Your task to perform on an android device: check storage Image 0: 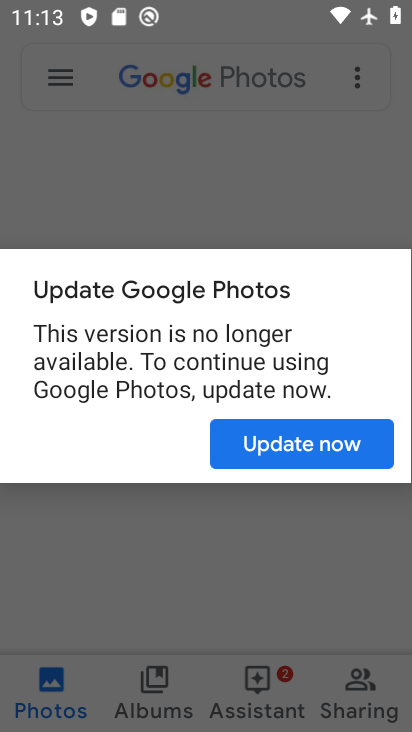
Step 0: press home button
Your task to perform on an android device: check storage Image 1: 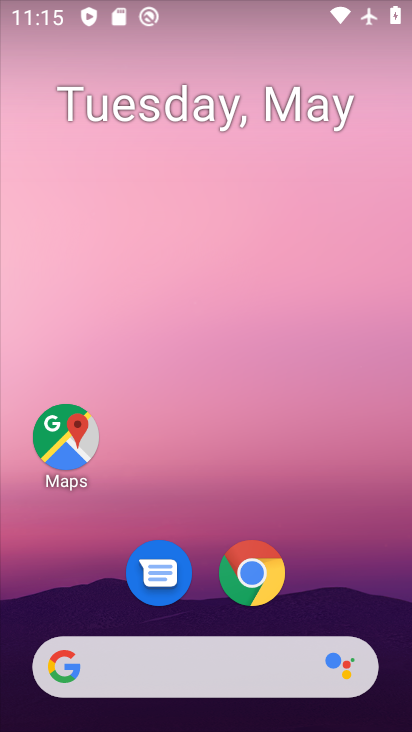
Step 1: drag from (143, 634) to (154, 256)
Your task to perform on an android device: check storage Image 2: 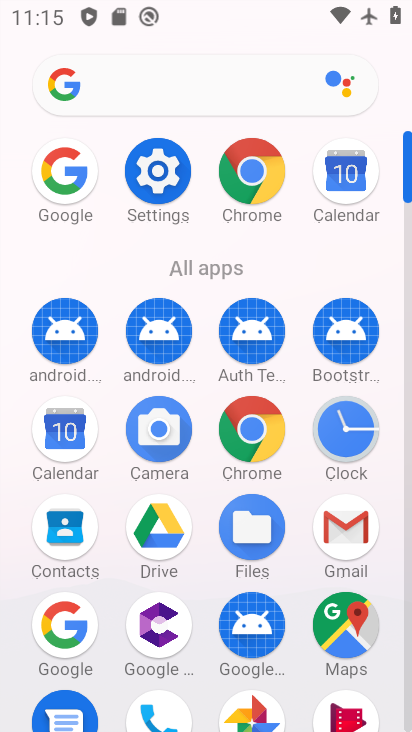
Step 2: click (156, 166)
Your task to perform on an android device: check storage Image 3: 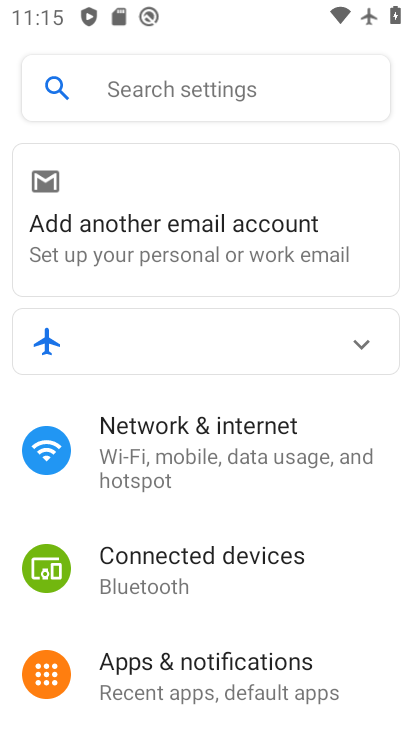
Step 3: click (139, 306)
Your task to perform on an android device: check storage Image 4: 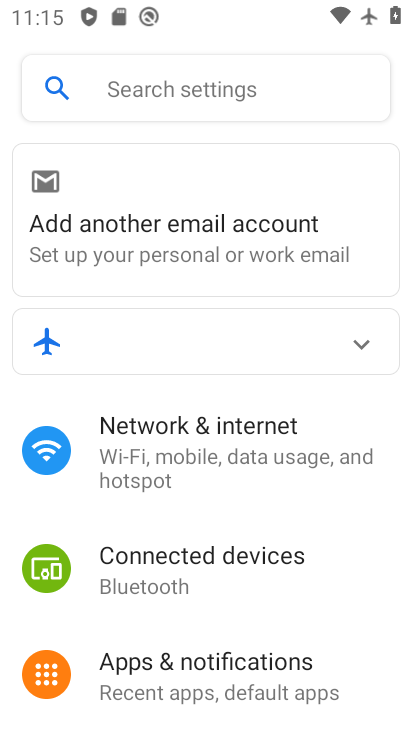
Step 4: drag from (198, 498) to (183, 432)
Your task to perform on an android device: check storage Image 5: 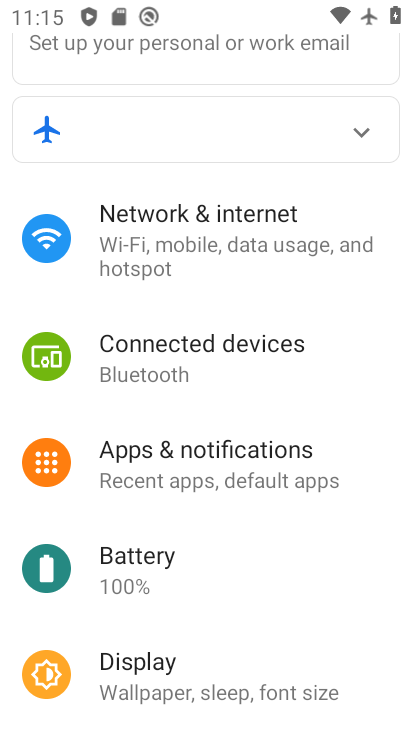
Step 5: drag from (164, 713) to (164, 421)
Your task to perform on an android device: check storage Image 6: 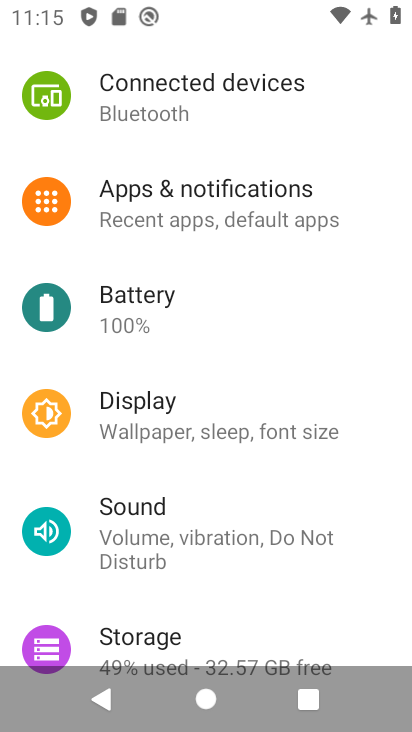
Step 6: drag from (161, 645) to (161, 382)
Your task to perform on an android device: check storage Image 7: 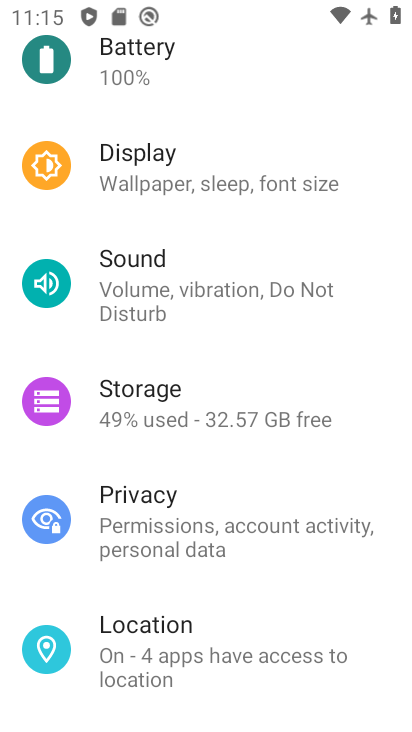
Step 7: click (148, 411)
Your task to perform on an android device: check storage Image 8: 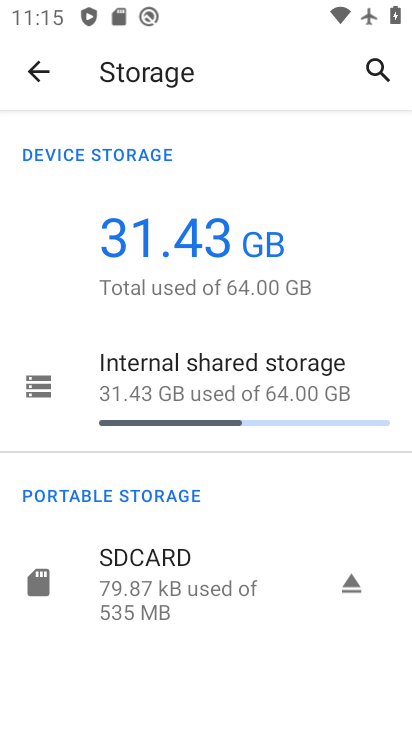
Step 8: task complete